Your task to perform on an android device: Go to Maps Image 0: 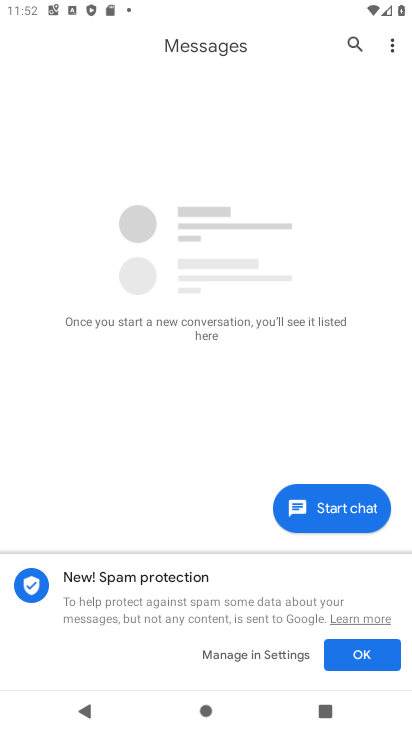
Step 0: press home button
Your task to perform on an android device: Go to Maps Image 1: 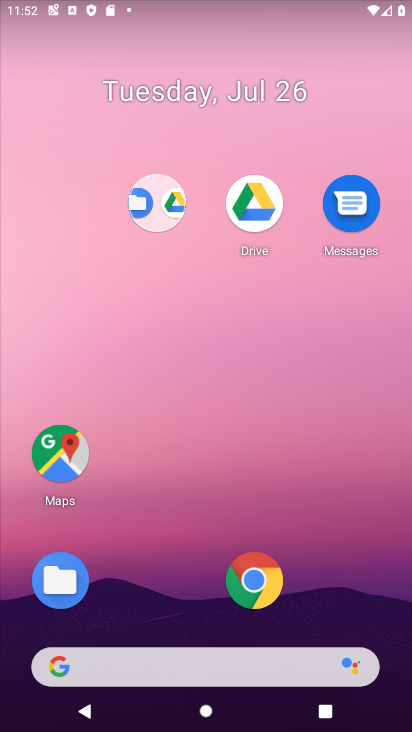
Step 1: click (73, 464)
Your task to perform on an android device: Go to Maps Image 2: 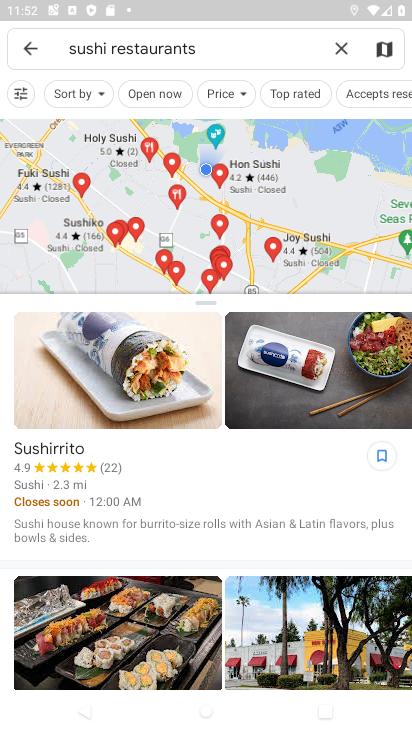
Step 2: task complete